Your task to perform on an android device: star an email in the gmail app Image 0: 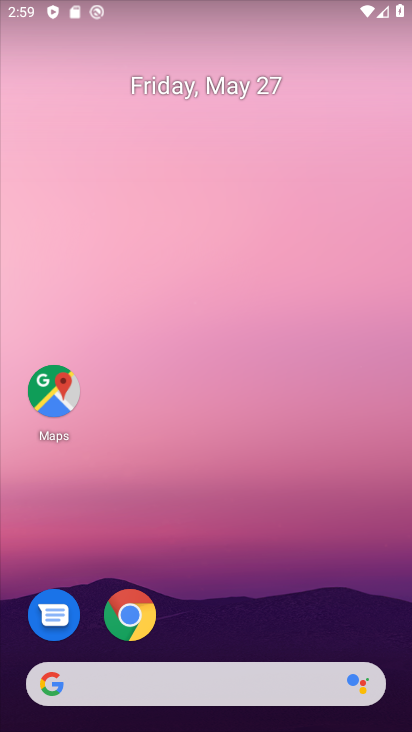
Step 0: drag from (141, 731) to (178, 33)
Your task to perform on an android device: star an email in the gmail app Image 1: 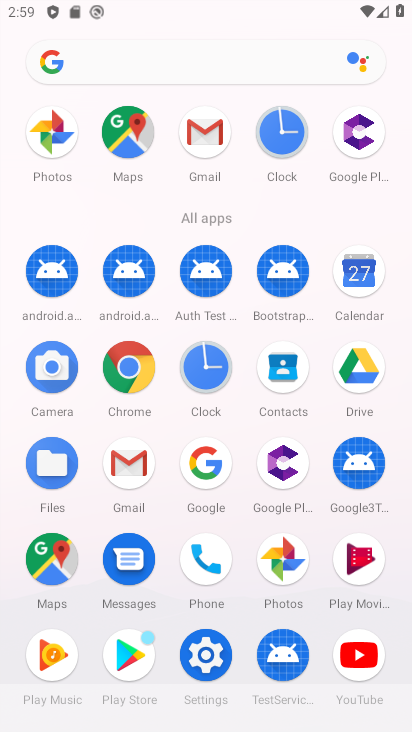
Step 1: click (217, 136)
Your task to perform on an android device: star an email in the gmail app Image 2: 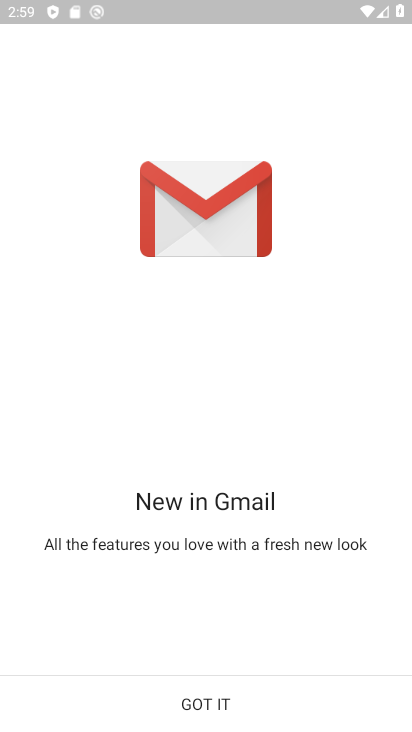
Step 2: click (212, 705)
Your task to perform on an android device: star an email in the gmail app Image 3: 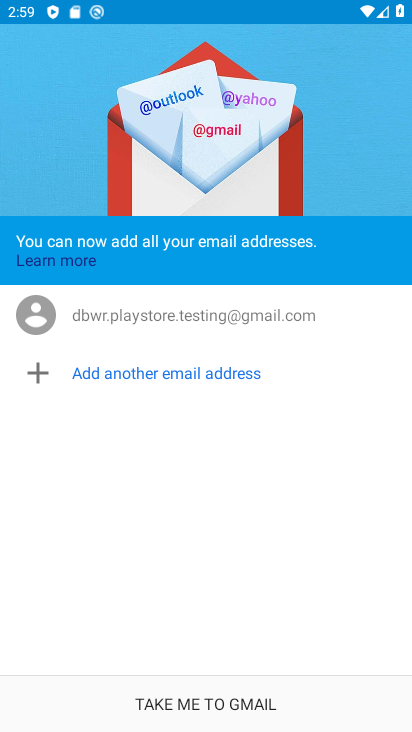
Step 3: click (210, 705)
Your task to perform on an android device: star an email in the gmail app Image 4: 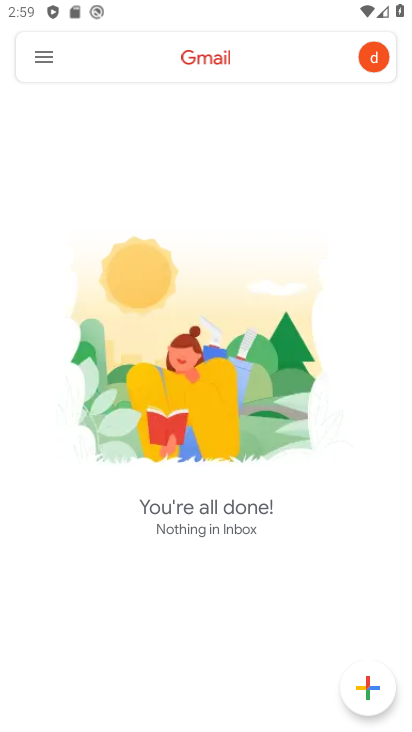
Step 4: click (53, 50)
Your task to perform on an android device: star an email in the gmail app Image 5: 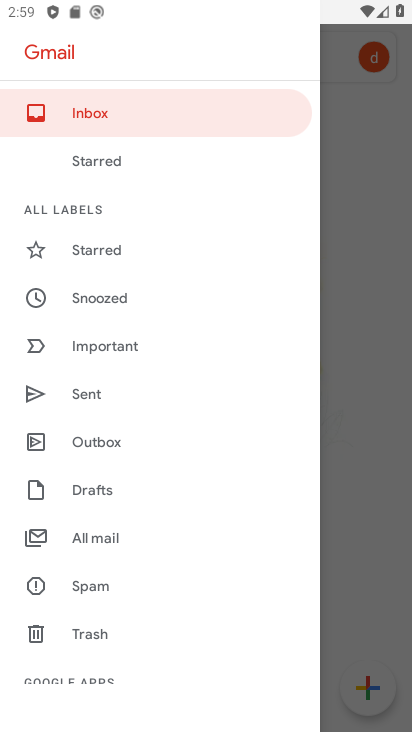
Step 5: click (97, 542)
Your task to perform on an android device: star an email in the gmail app Image 6: 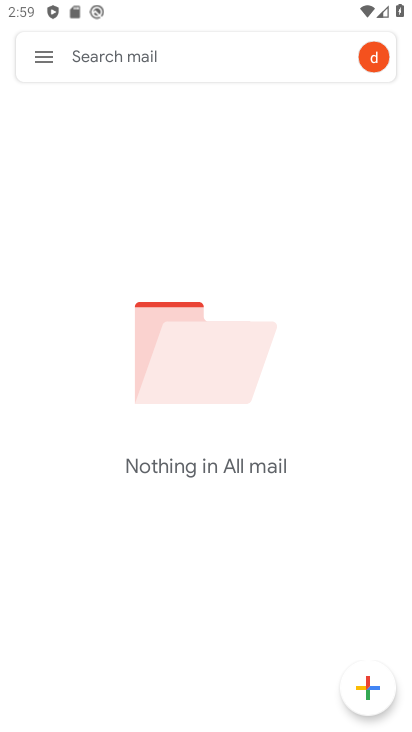
Step 6: task complete